Your task to perform on an android device: Open Maps and search for coffee Image 0: 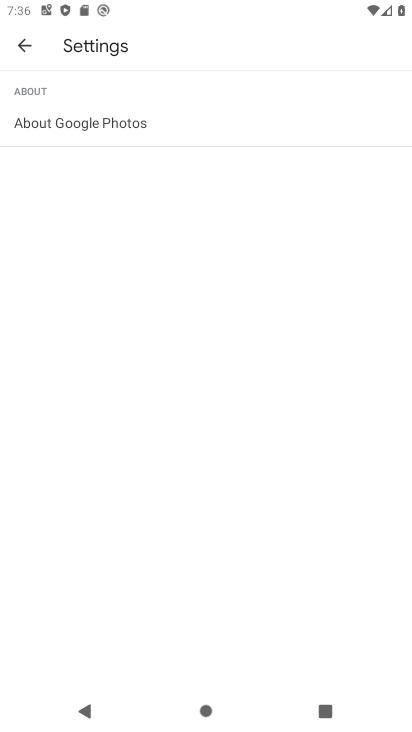
Step 0: press home button
Your task to perform on an android device: Open Maps and search for coffee Image 1: 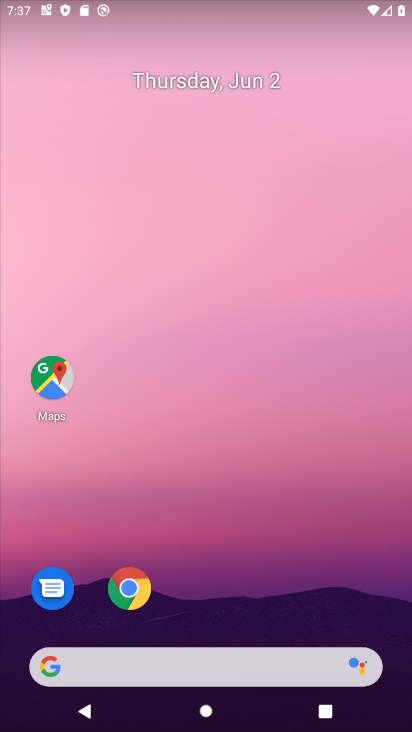
Step 1: drag from (150, 685) to (172, 106)
Your task to perform on an android device: Open Maps and search for coffee Image 2: 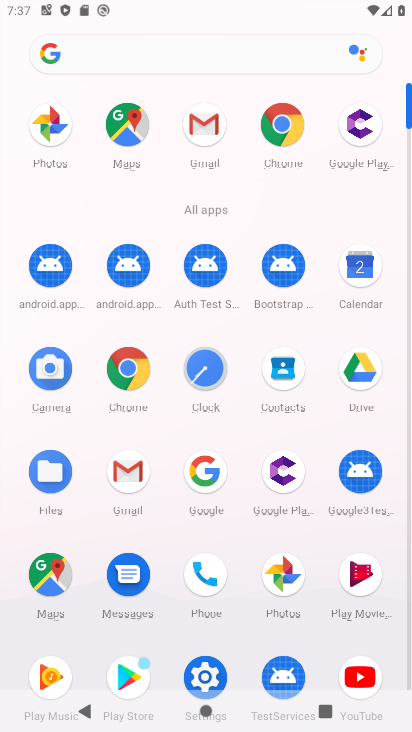
Step 2: click (140, 135)
Your task to perform on an android device: Open Maps and search for coffee Image 3: 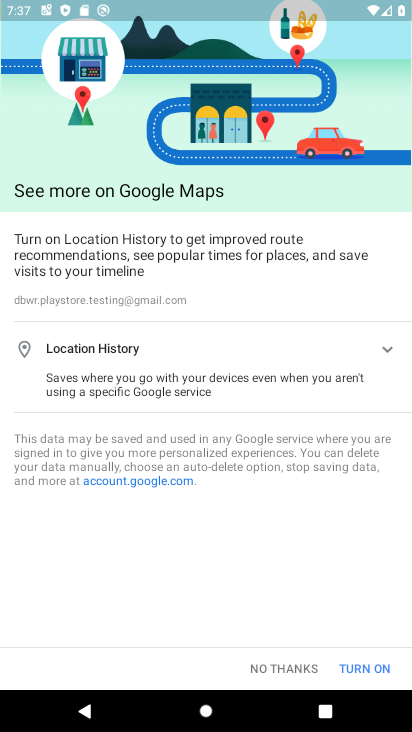
Step 3: click (364, 671)
Your task to perform on an android device: Open Maps and search for coffee Image 4: 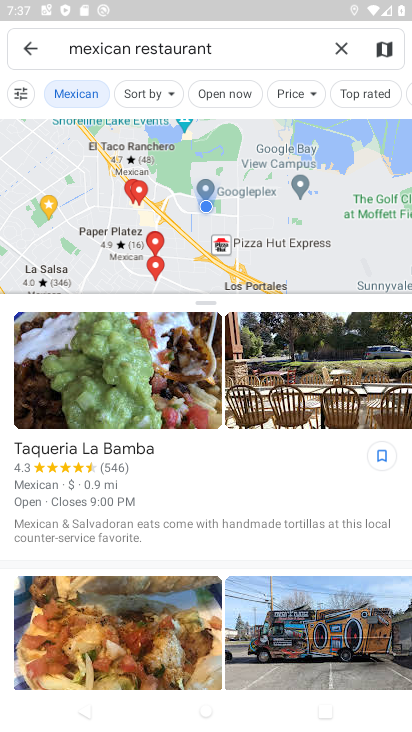
Step 4: click (340, 48)
Your task to perform on an android device: Open Maps and search for coffee Image 5: 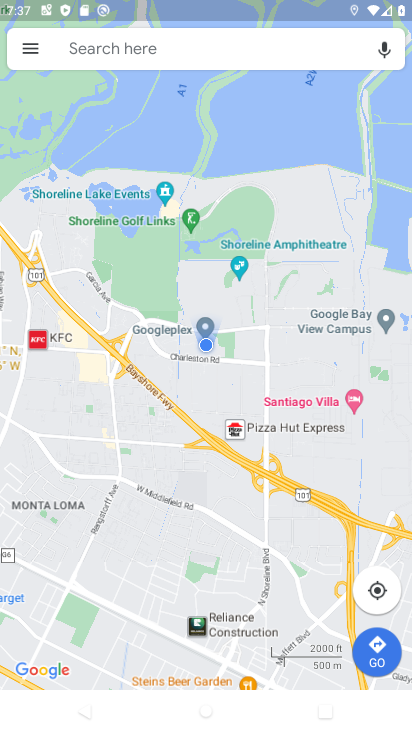
Step 5: click (217, 43)
Your task to perform on an android device: Open Maps and search for coffee Image 6: 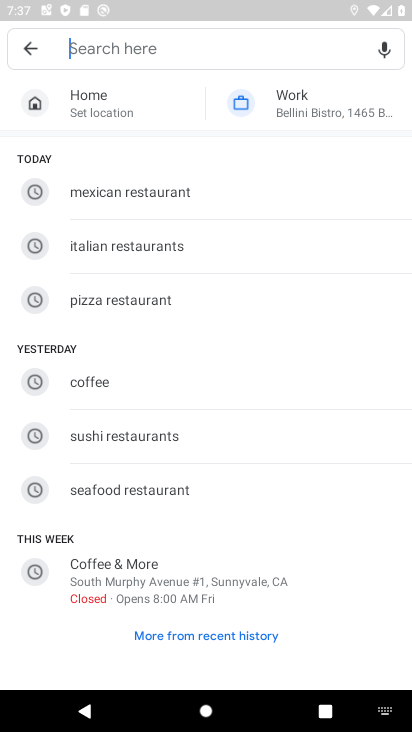
Step 6: click (86, 385)
Your task to perform on an android device: Open Maps and search for coffee Image 7: 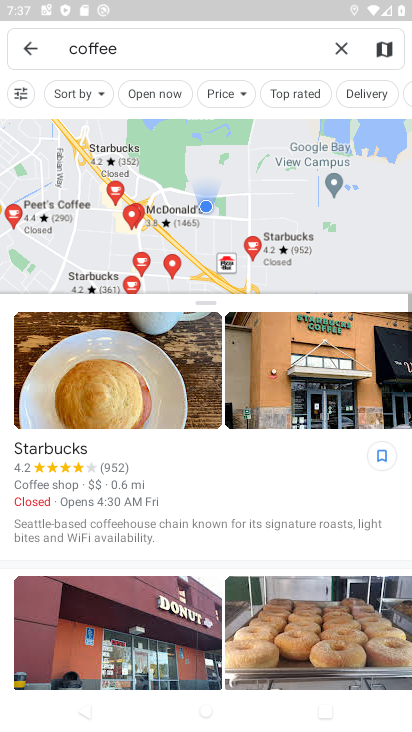
Step 7: task complete